Your task to perform on an android device: What's on my calendar tomorrow? Image 0: 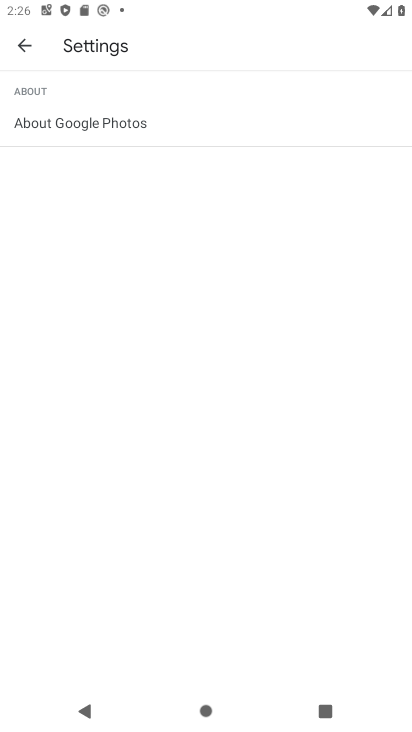
Step 0: press home button
Your task to perform on an android device: What's on my calendar tomorrow? Image 1: 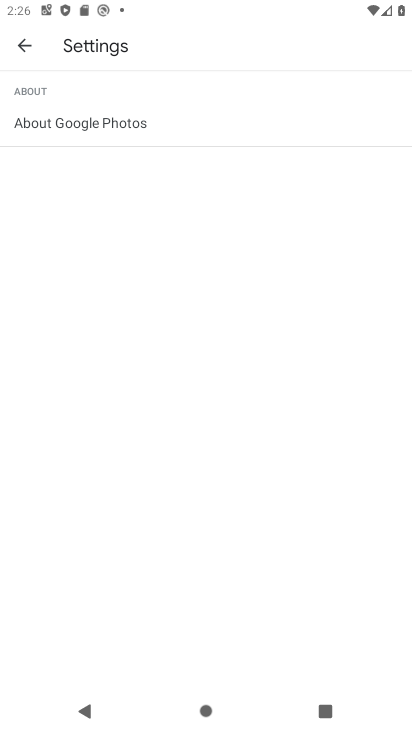
Step 1: press home button
Your task to perform on an android device: What's on my calendar tomorrow? Image 2: 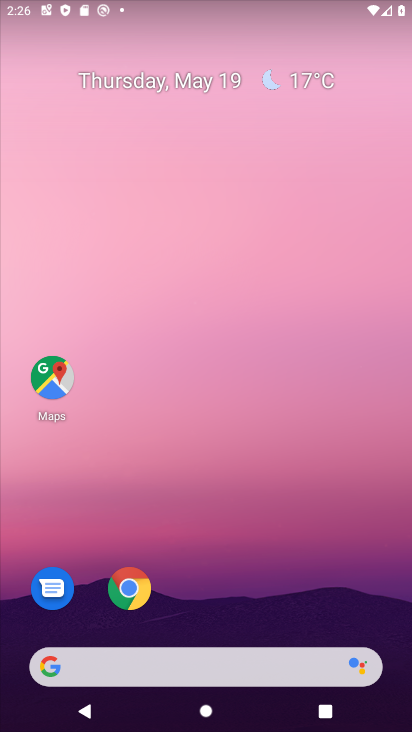
Step 2: drag from (198, 537) to (185, 102)
Your task to perform on an android device: What's on my calendar tomorrow? Image 3: 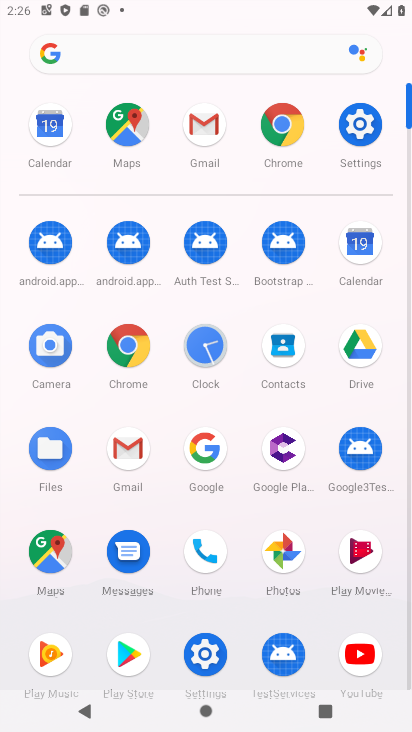
Step 3: click (50, 129)
Your task to perform on an android device: What's on my calendar tomorrow? Image 4: 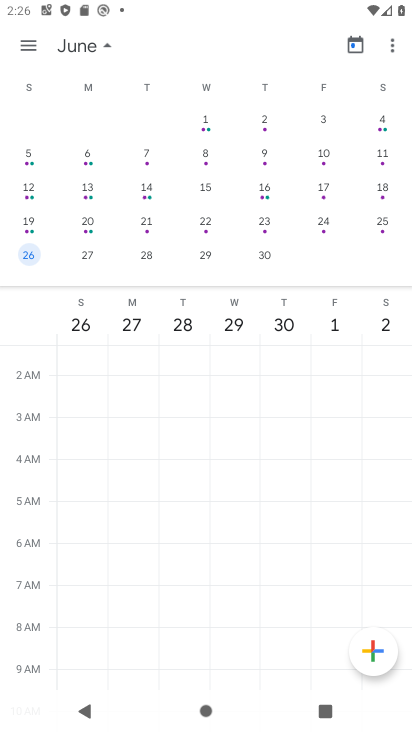
Step 4: click (5, 186)
Your task to perform on an android device: What's on my calendar tomorrow? Image 5: 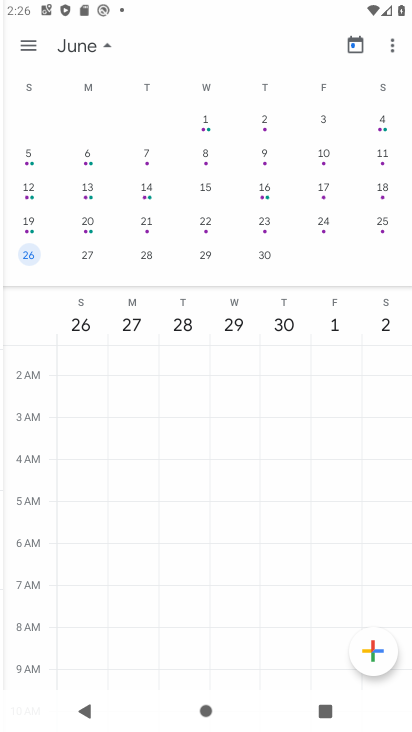
Step 5: drag from (21, 186) to (405, 211)
Your task to perform on an android device: What's on my calendar tomorrow? Image 6: 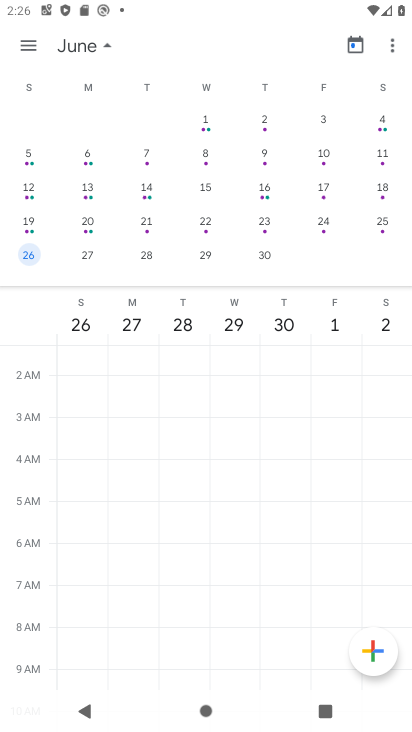
Step 6: drag from (62, 174) to (378, 195)
Your task to perform on an android device: What's on my calendar tomorrow? Image 7: 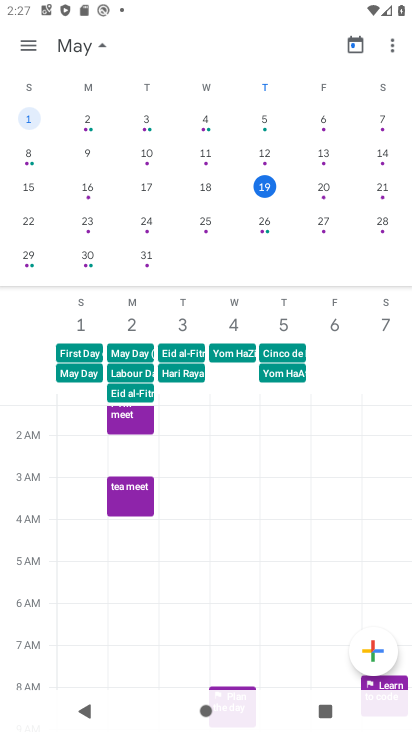
Step 7: click (317, 186)
Your task to perform on an android device: What's on my calendar tomorrow? Image 8: 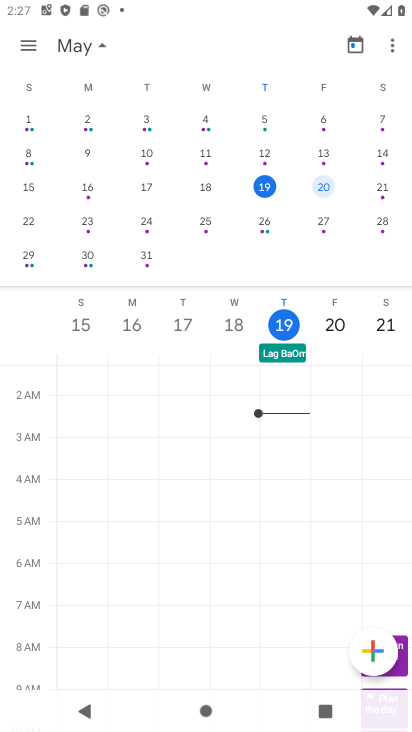
Step 8: task complete